Your task to perform on an android device: read, delete, or share a saved page in the chrome app Image 0: 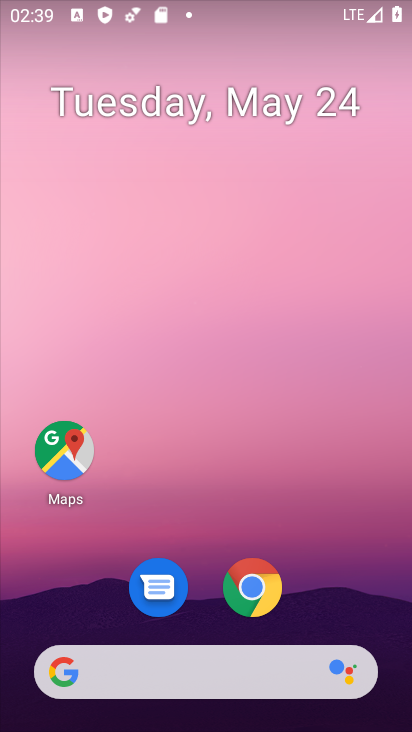
Step 0: click (239, 584)
Your task to perform on an android device: read, delete, or share a saved page in the chrome app Image 1: 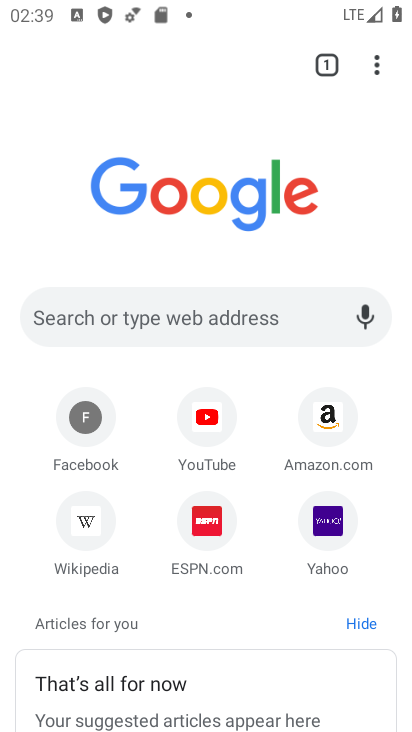
Step 1: click (383, 69)
Your task to perform on an android device: read, delete, or share a saved page in the chrome app Image 2: 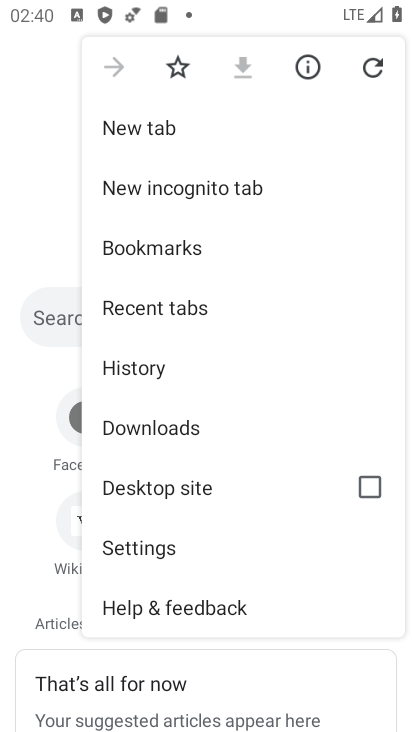
Step 2: click (200, 418)
Your task to perform on an android device: read, delete, or share a saved page in the chrome app Image 3: 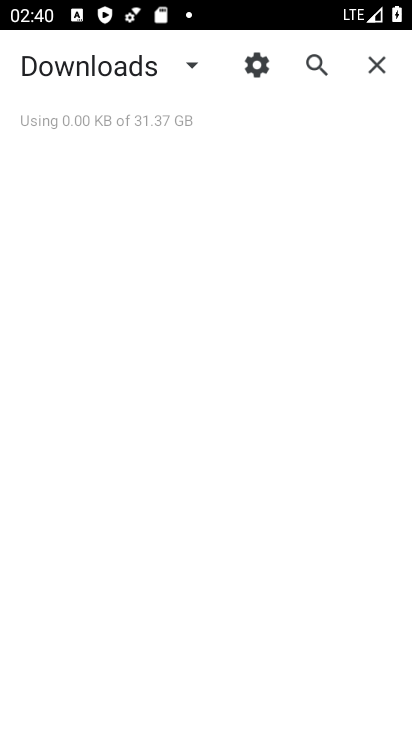
Step 3: task complete